Your task to perform on an android device: move an email to a new category in the gmail app Image 0: 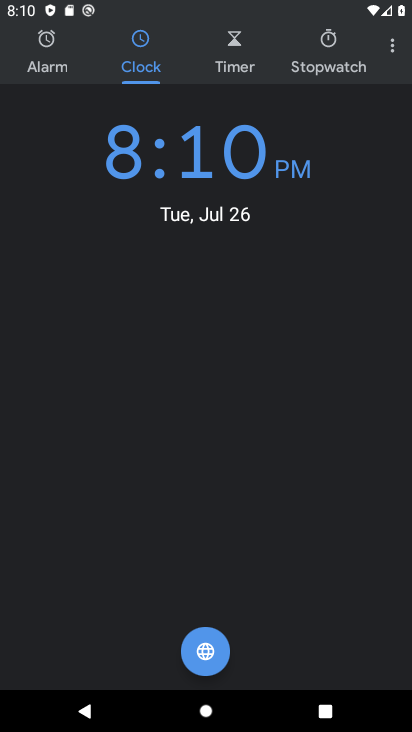
Step 0: press home button
Your task to perform on an android device: move an email to a new category in the gmail app Image 1: 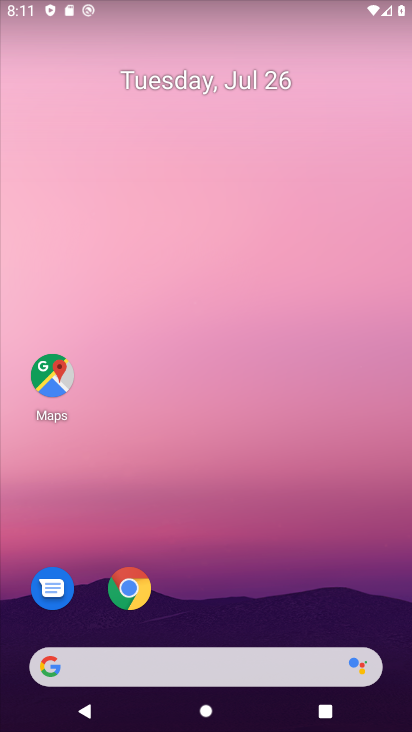
Step 1: drag from (290, 578) to (306, 12)
Your task to perform on an android device: move an email to a new category in the gmail app Image 2: 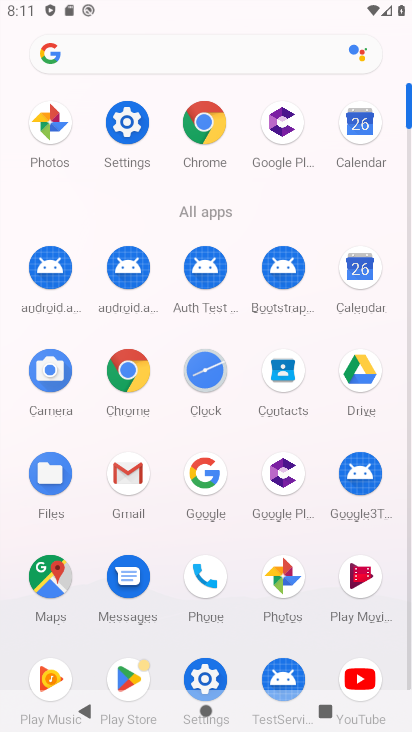
Step 2: click (128, 478)
Your task to perform on an android device: move an email to a new category in the gmail app Image 3: 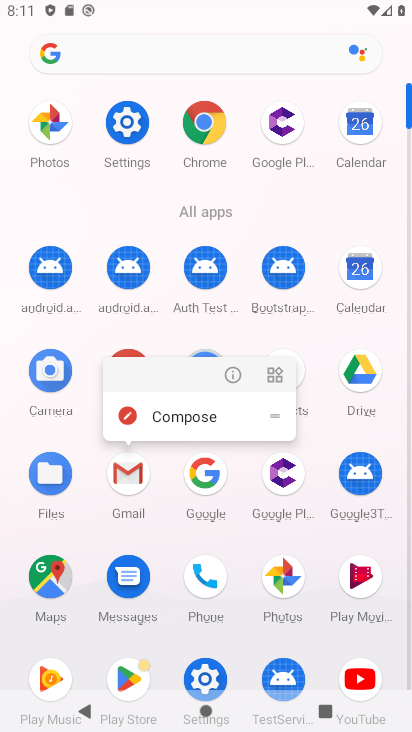
Step 3: click (128, 478)
Your task to perform on an android device: move an email to a new category in the gmail app Image 4: 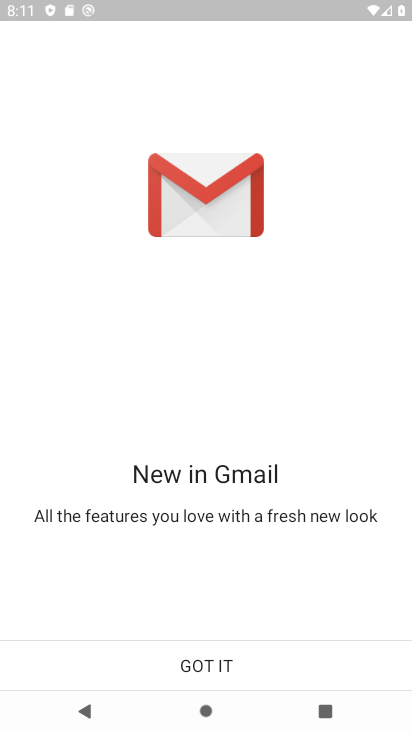
Step 4: click (191, 664)
Your task to perform on an android device: move an email to a new category in the gmail app Image 5: 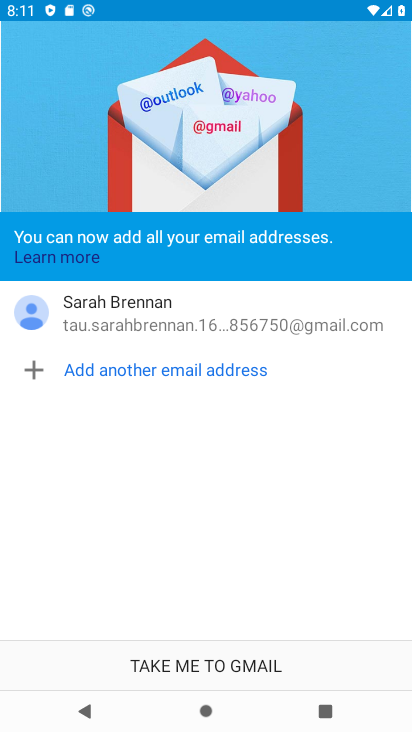
Step 5: click (191, 664)
Your task to perform on an android device: move an email to a new category in the gmail app Image 6: 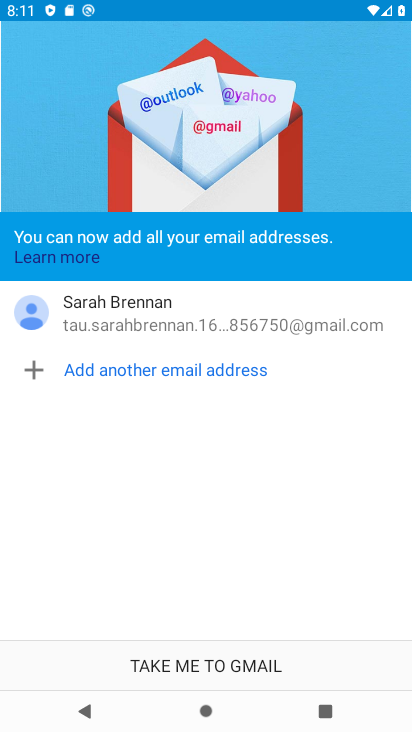
Step 6: click (191, 664)
Your task to perform on an android device: move an email to a new category in the gmail app Image 7: 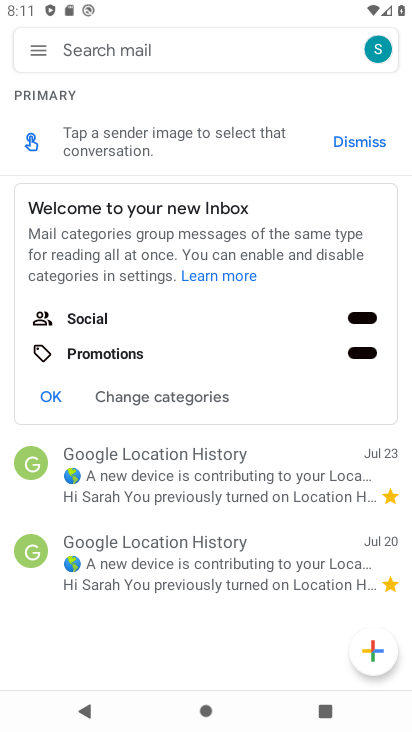
Step 7: click (34, 57)
Your task to perform on an android device: move an email to a new category in the gmail app Image 8: 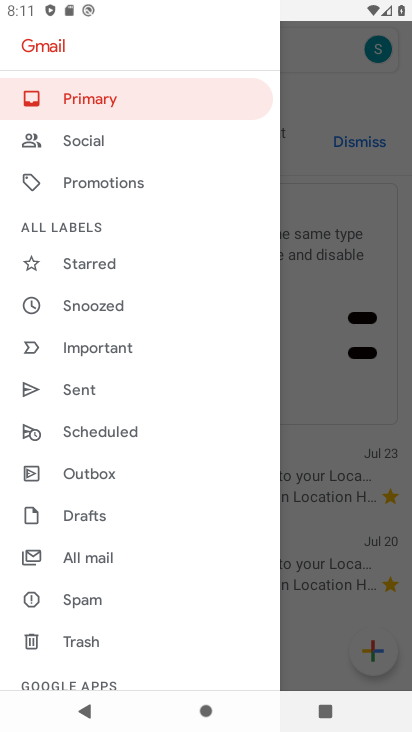
Step 8: click (101, 553)
Your task to perform on an android device: move an email to a new category in the gmail app Image 9: 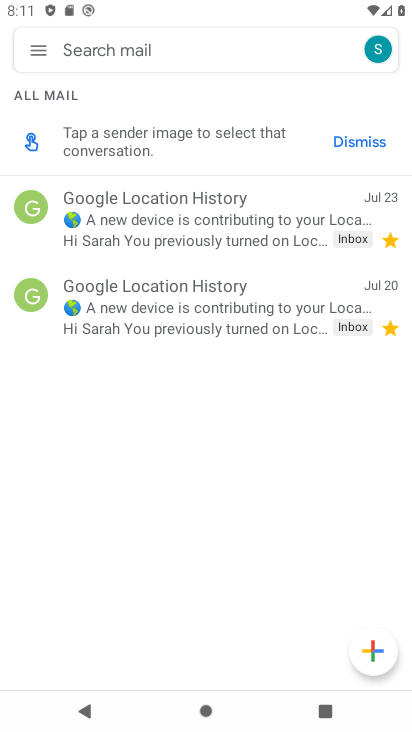
Step 9: click (215, 195)
Your task to perform on an android device: move an email to a new category in the gmail app Image 10: 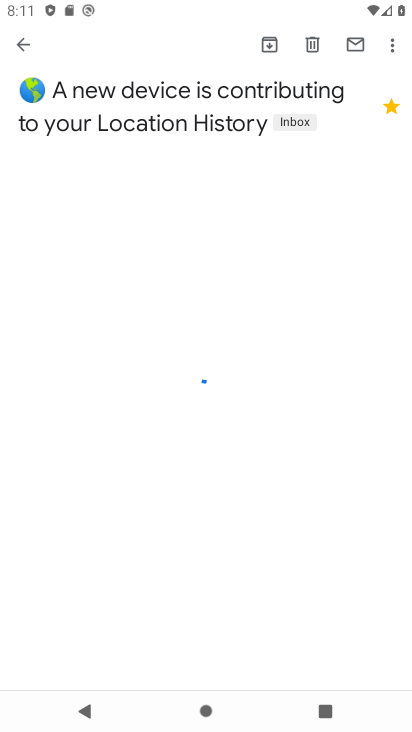
Step 10: click (396, 44)
Your task to perform on an android device: move an email to a new category in the gmail app Image 11: 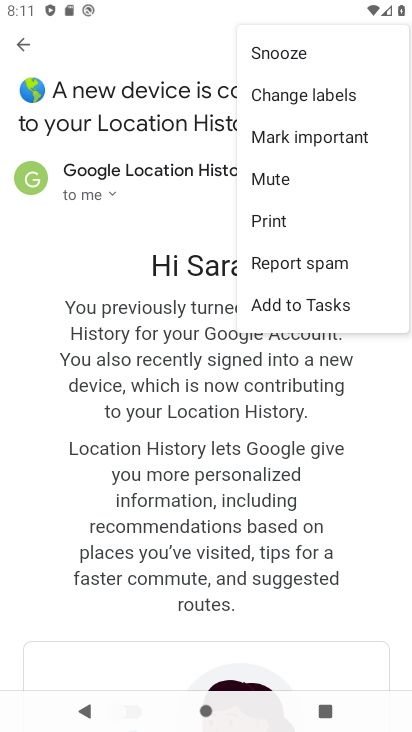
Step 11: click (298, 141)
Your task to perform on an android device: move an email to a new category in the gmail app Image 12: 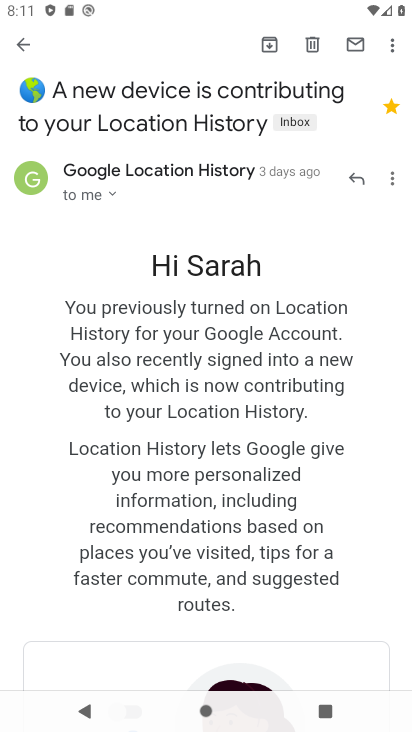
Step 12: task complete